Your task to perform on an android device: turn off priority inbox in the gmail app Image 0: 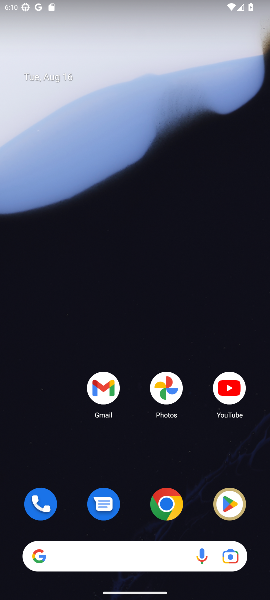
Step 0: click (109, 391)
Your task to perform on an android device: turn off priority inbox in the gmail app Image 1: 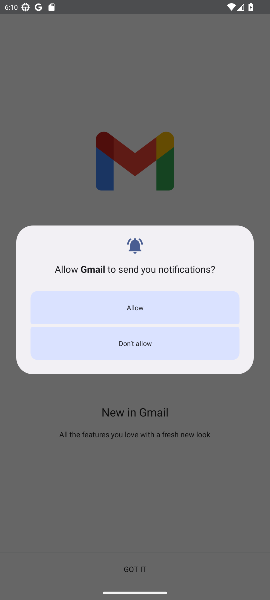
Step 1: click (136, 344)
Your task to perform on an android device: turn off priority inbox in the gmail app Image 2: 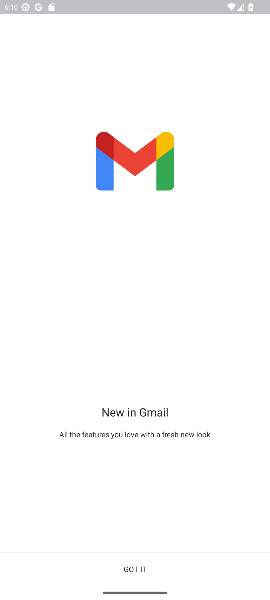
Step 2: click (122, 570)
Your task to perform on an android device: turn off priority inbox in the gmail app Image 3: 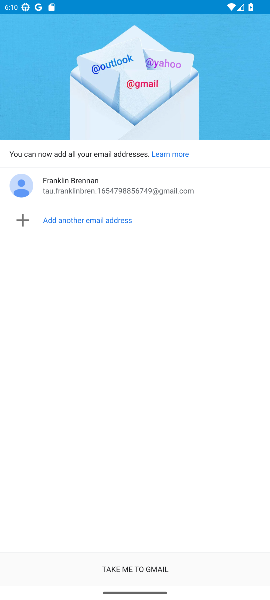
Step 3: click (118, 565)
Your task to perform on an android device: turn off priority inbox in the gmail app Image 4: 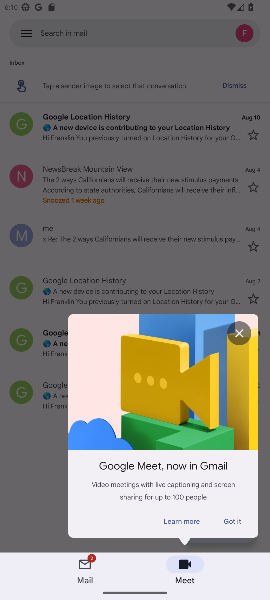
Step 4: click (238, 331)
Your task to perform on an android device: turn off priority inbox in the gmail app Image 5: 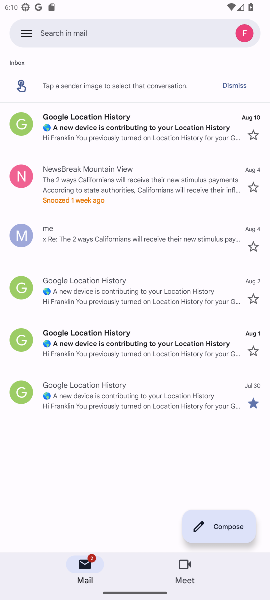
Step 5: click (33, 33)
Your task to perform on an android device: turn off priority inbox in the gmail app Image 6: 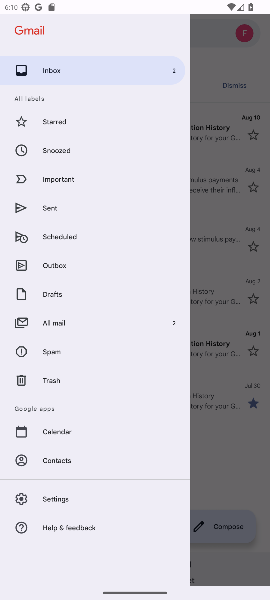
Step 6: click (64, 499)
Your task to perform on an android device: turn off priority inbox in the gmail app Image 7: 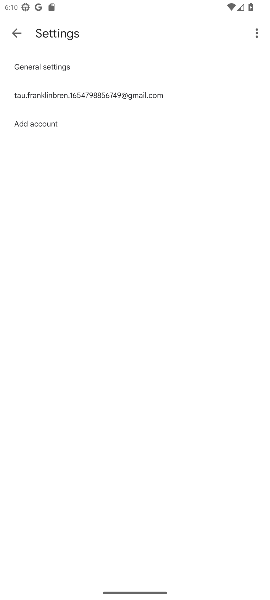
Step 7: click (78, 99)
Your task to perform on an android device: turn off priority inbox in the gmail app Image 8: 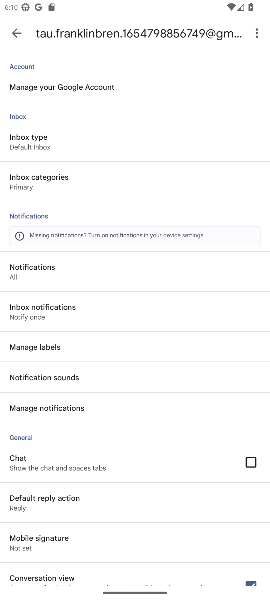
Step 8: click (50, 142)
Your task to perform on an android device: turn off priority inbox in the gmail app Image 9: 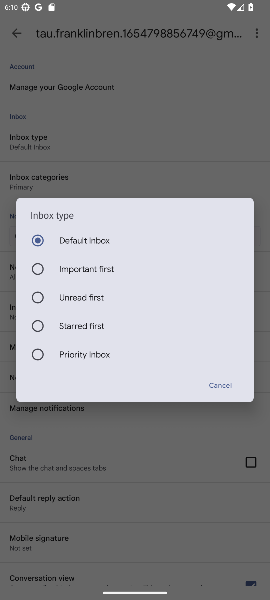
Step 9: click (46, 354)
Your task to perform on an android device: turn off priority inbox in the gmail app Image 10: 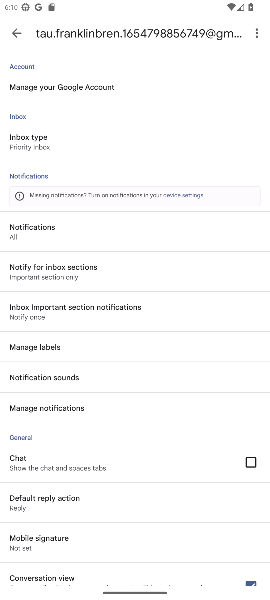
Step 10: task complete